Your task to perform on an android device: toggle sleep mode Image 0: 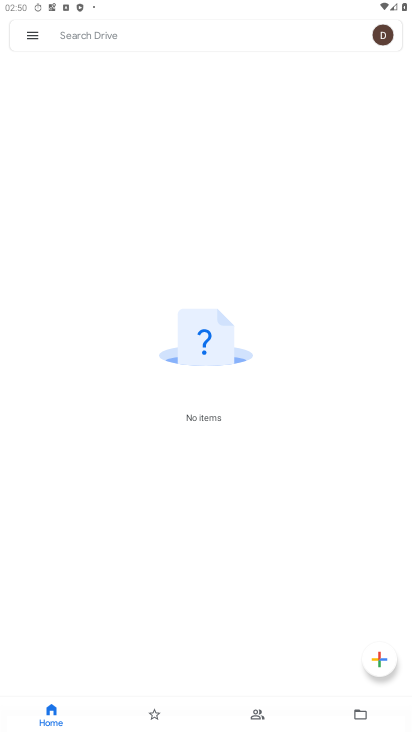
Step 0: press home button
Your task to perform on an android device: toggle sleep mode Image 1: 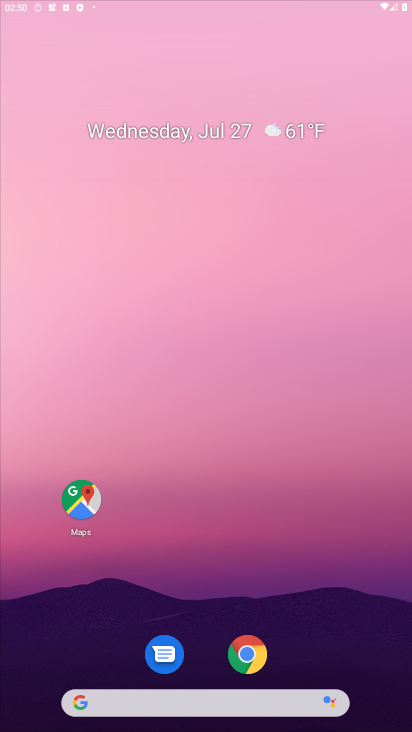
Step 1: drag from (287, 703) to (211, 2)
Your task to perform on an android device: toggle sleep mode Image 2: 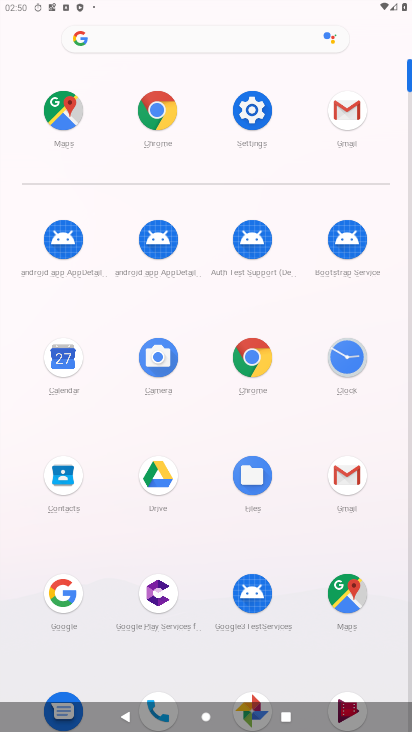
Step 2: click (234, 117)
Your task to perform on an android device: toggle sleep mode Image 3: 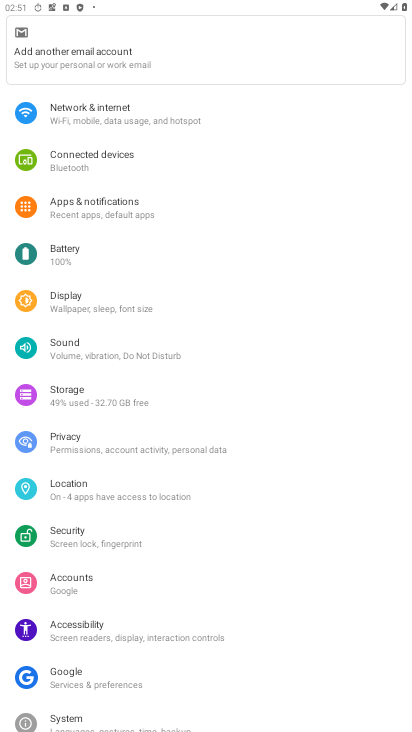
Step 3: click (98, 310)
Your task to perform on an android device: toggle sleep mode Image 4: 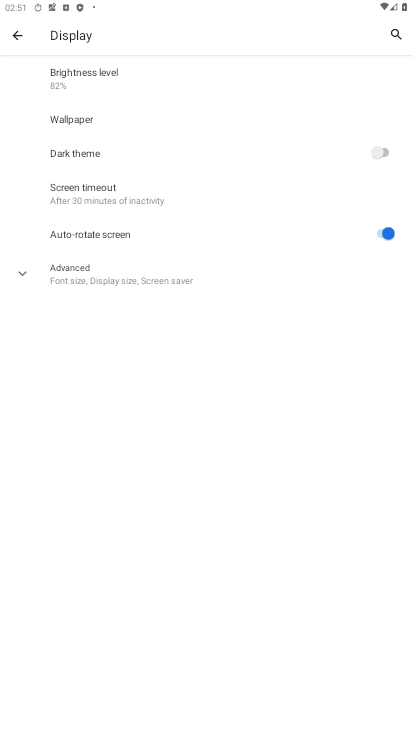
Step 4: task complete